Your task to perform on an android device: set an alarm Image 0: 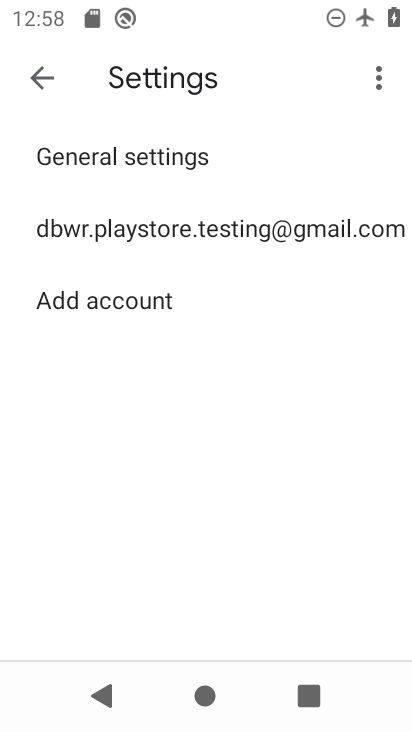
Step 0: press home button
Your task to perform on an android device: set an alarm Image 1: 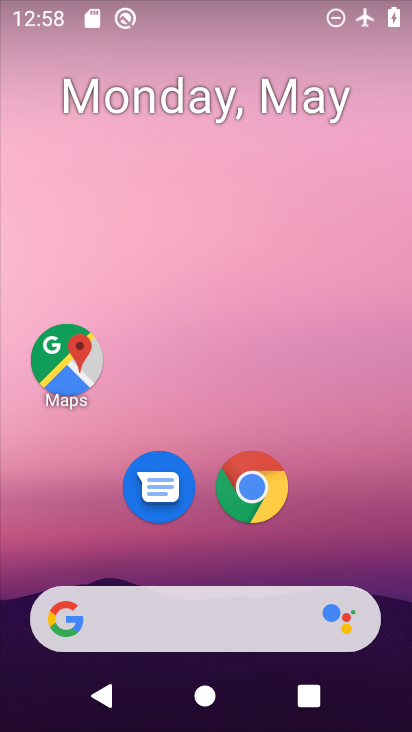
Step 1: drag from (316, 264) to (292, 166)
Your task to perform on an android device: set an alarm Image 2: 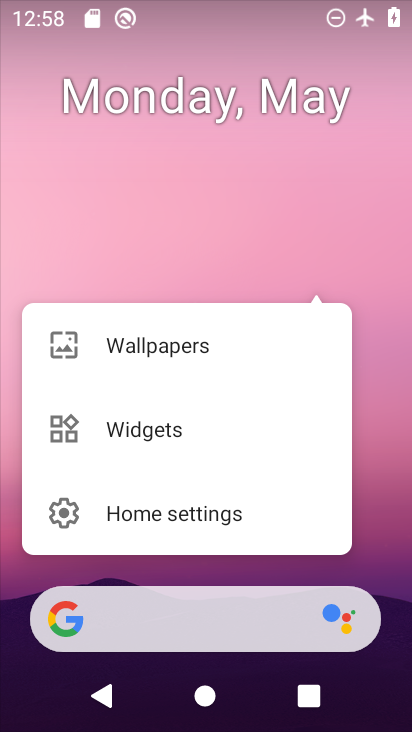
Step 2: drag from (376, 561) to (310, 50)
Your task to perform on an android device: set an alarm Image 3: 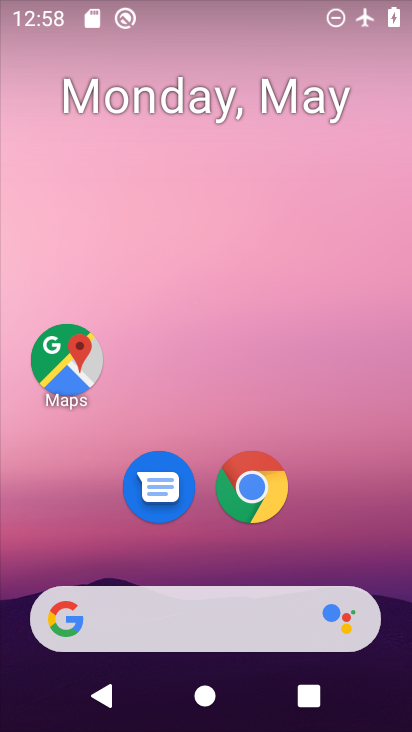
Step 3: drag from (331, 557) to (289, 63)
Your task to perform on an android device: set an alarm Image 4: 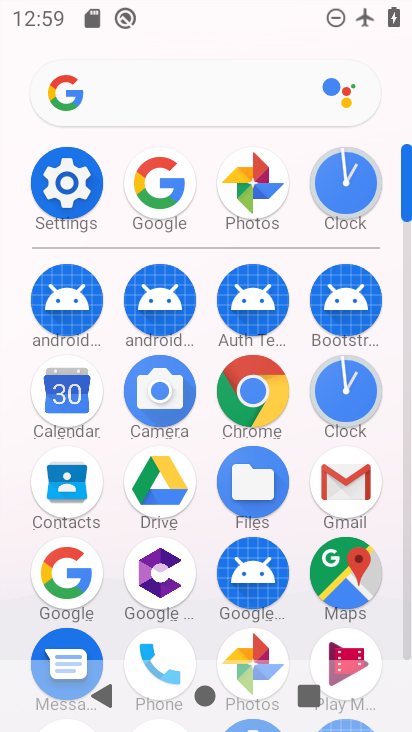
Step 4: click (345, 182)
Your task to perform on an android device: set an alarm Image 5: 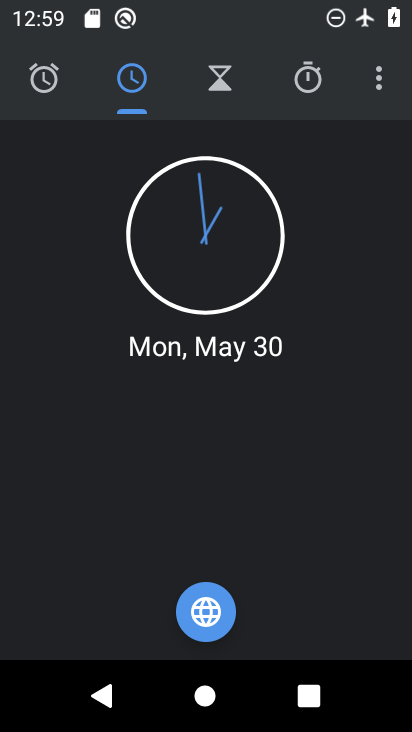
Step 5: click (53, 75)
Your task to perform on an android device: set an alarm Image 6: 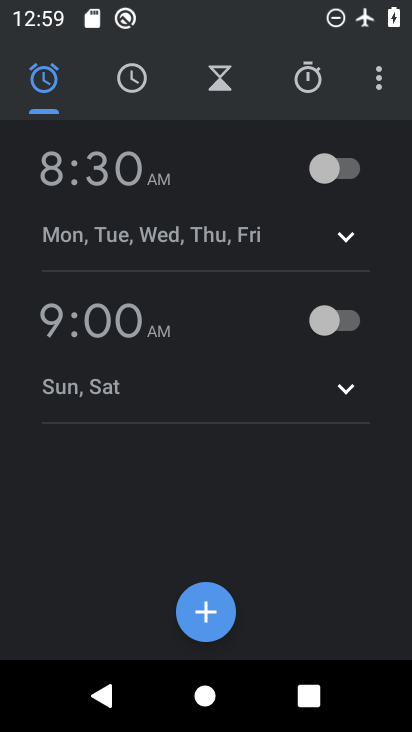
Step 6: click (207, 610)
Your task to perform on an android device: set an alarm Image 7: 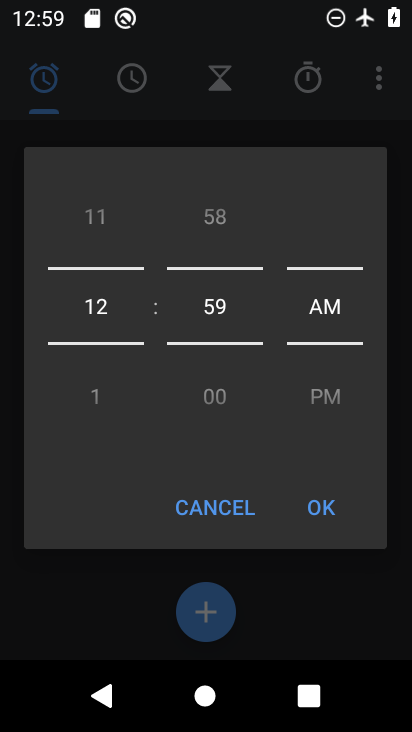
Step 7: drag from (105, 215) to (81, 438)
Your task to perform on an android device: set an alarm Image 8: 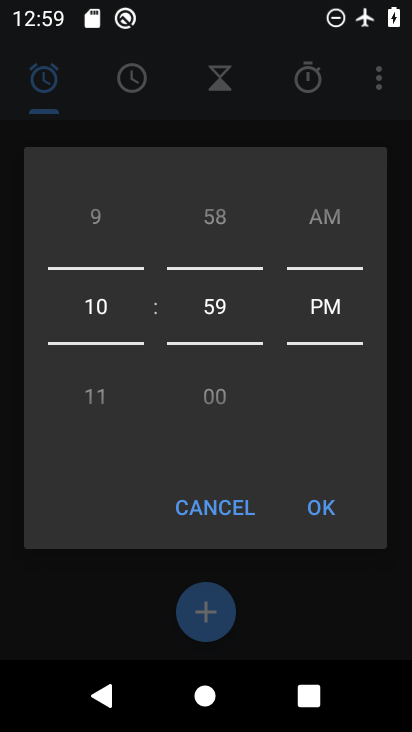
Step 8: drag from (95, 219) to (116, 396)
Your task to perform on an android device: set an alarm Image 9: 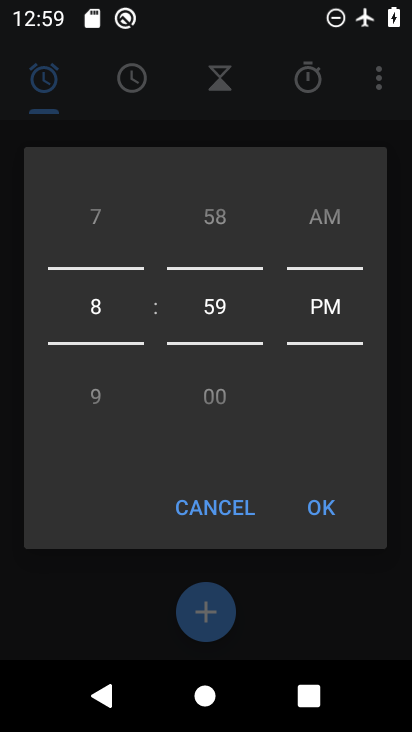
Step 9: drag from (103, 219) to (109, 367)
Your task to perform on an android device: set an alarm Image 10: 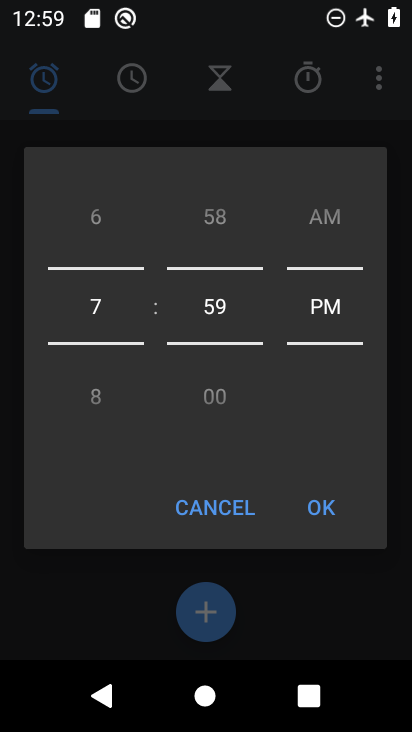
Step 10: drag from (217, 215) to (214, 420)
Your task to perform on an android device: set an alarm Image 11: 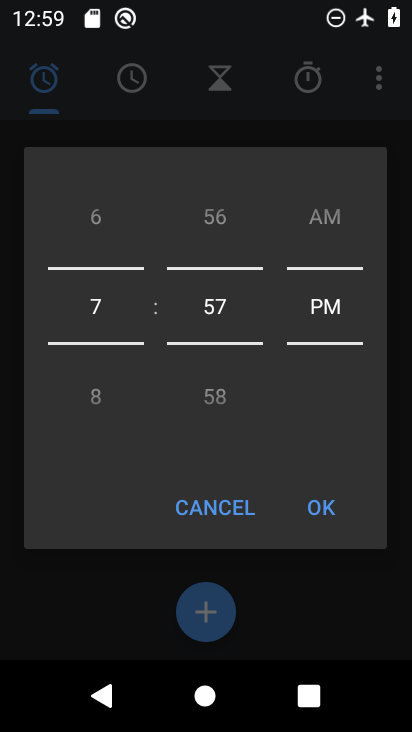
Step 11: drag from (225, 219) to (232, 462)
Your task to perform on an android device: set an alarm Image 12: 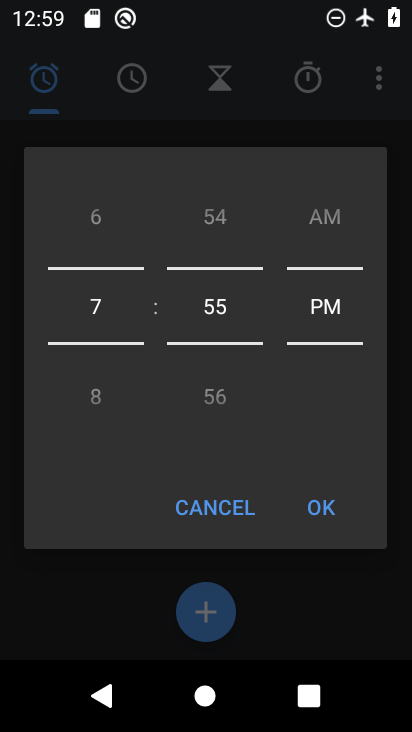
Step 12: drag from (234, 228) to (246, 430)
Your task to perform on an android device: set an alarm Image 13: 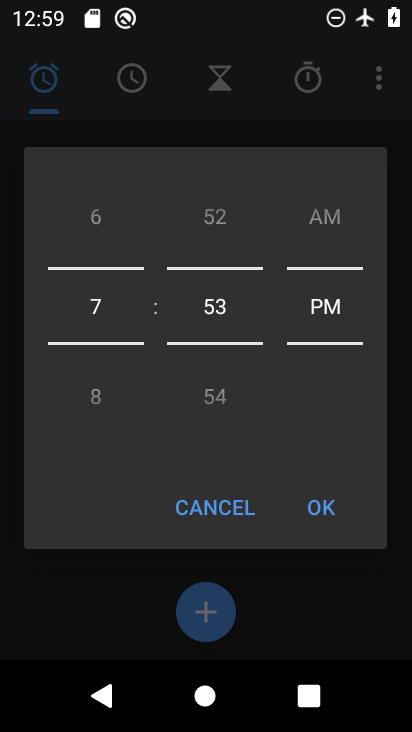
Step 13: drag from (321, 219) to (369, 355)
Your task to perform on an android device: set an alarm Image 14: 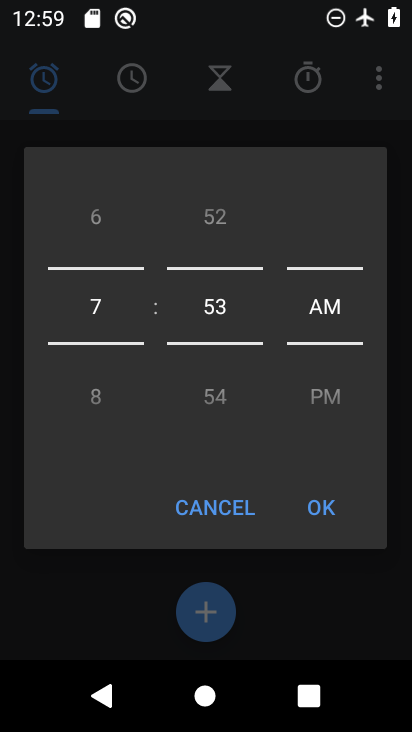
Step 14: click (330, 499)
Your task to perform on an android device: set an alarm Image 15: 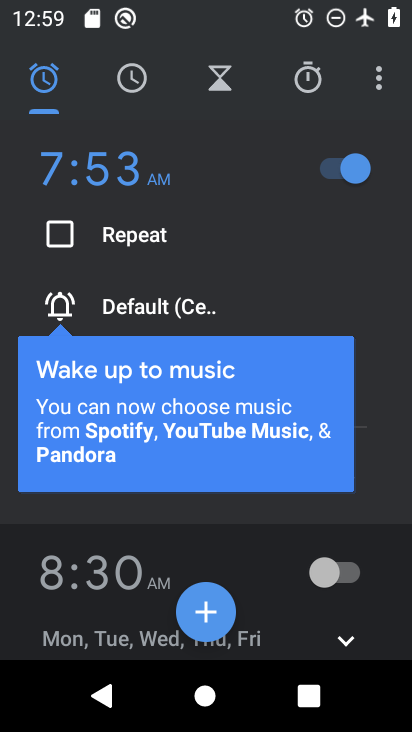
Step 15: click (230, 140)
Your task to perform on an android device: set an alarm Image 16: 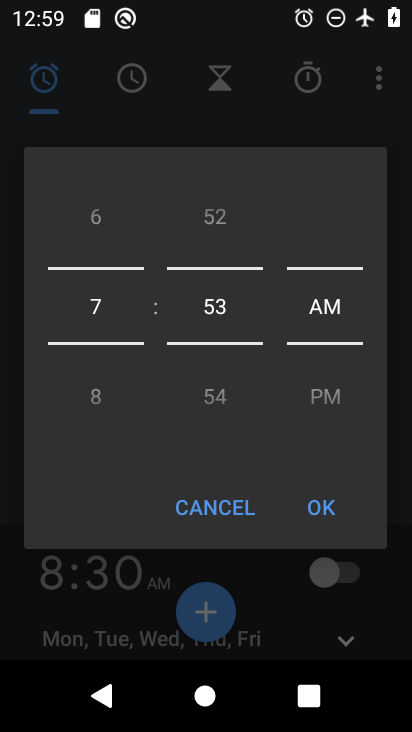
Step 16: click (315, 499)
Your task to perform on an android device: set an alarm Image 17: 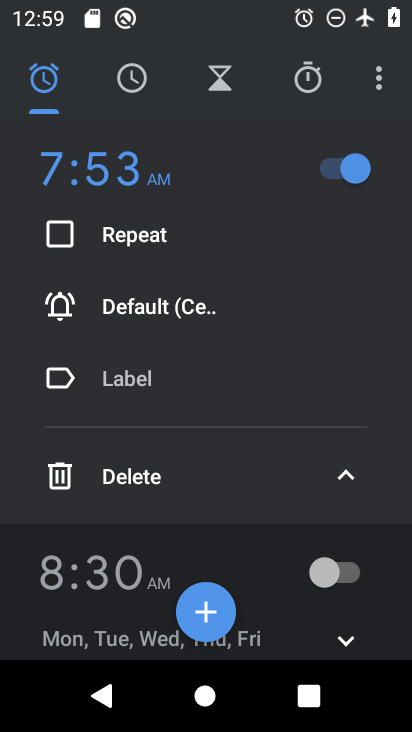
Step 17: click (342, 482)
Your task to perform on an android device: set an alarm Image 18: 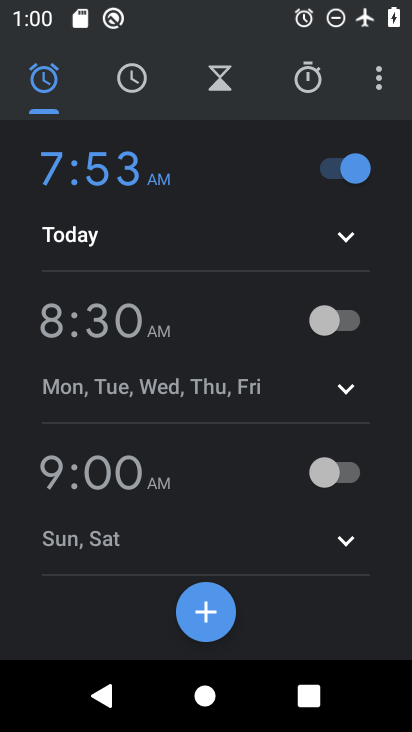
Step 18: task complete